Your task to perform on an android device: toggle location history Image 0: 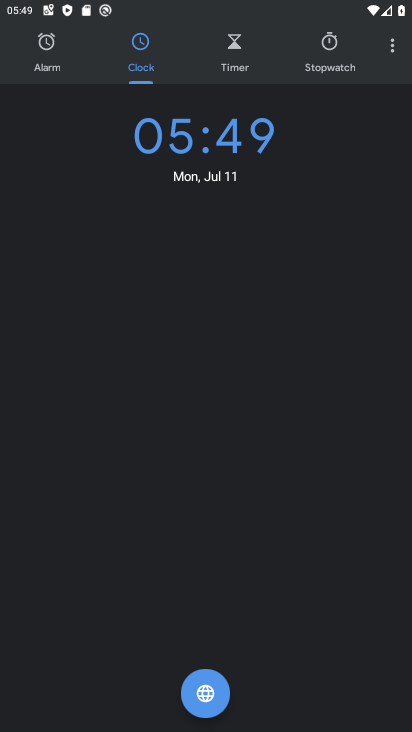
Step 0: press home button
Your task to perform on an android device: toggle location history Image 1: 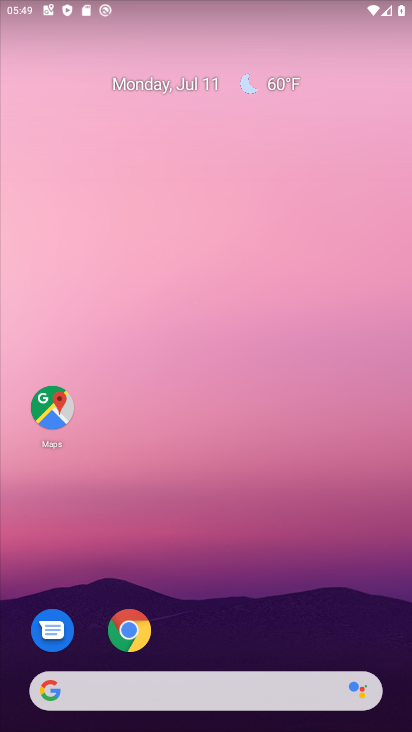
Step 1: drag from (194, 629) to (195, 546)
Your task to perform on an android device: toggle location history Image 2: 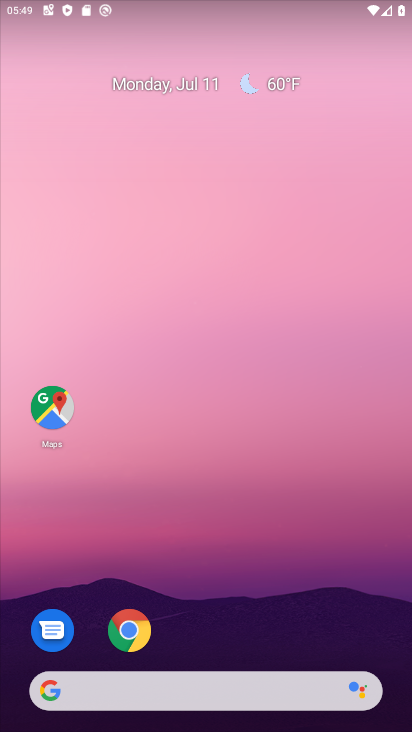
Step 2: drag from (206, 596) to (226, 77)
Your task to perform on an android device: toggle location history Image 3: 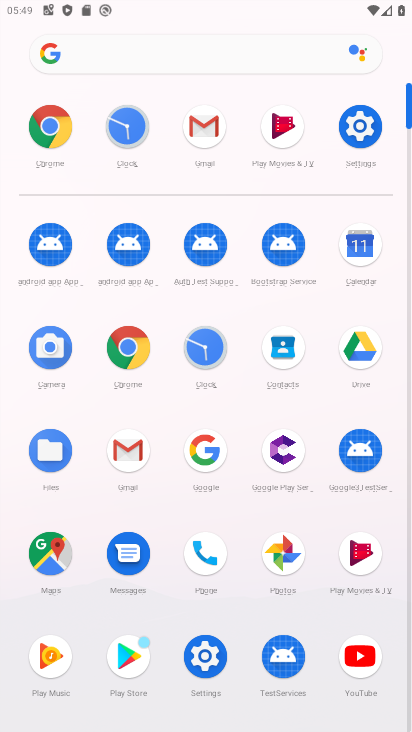
Step 3: click (362, 120)
Your task to perform on an android device: toggle location history Image 4: 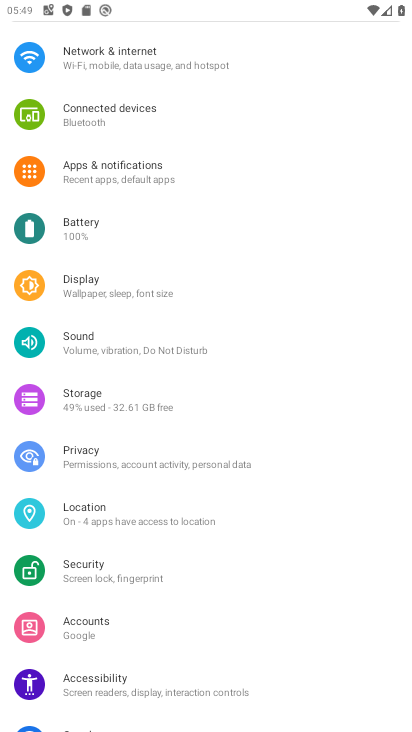
Step 4: click (80, 519)
Your task to perform on an android device: toggle location history Image 5: 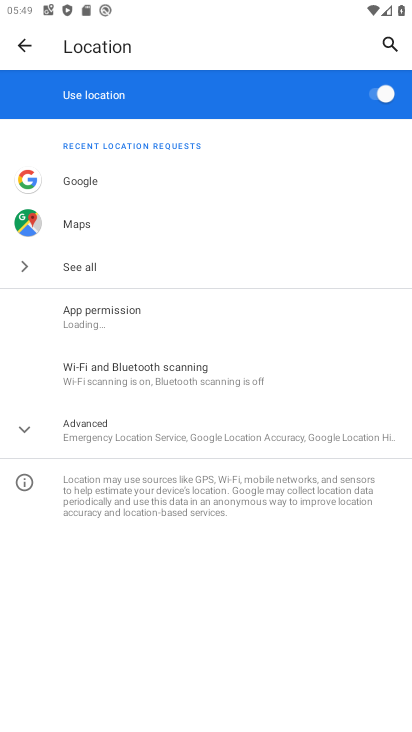
Step 5: click (107, 433)
Your task to perform on an android device: toggle location history Image 6: 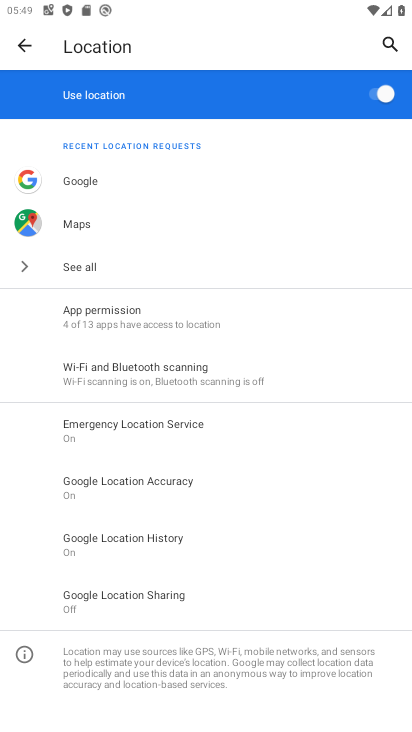
Step 6: click (141, 546)
Your task to perform on an android device: toggle location history Image 7: 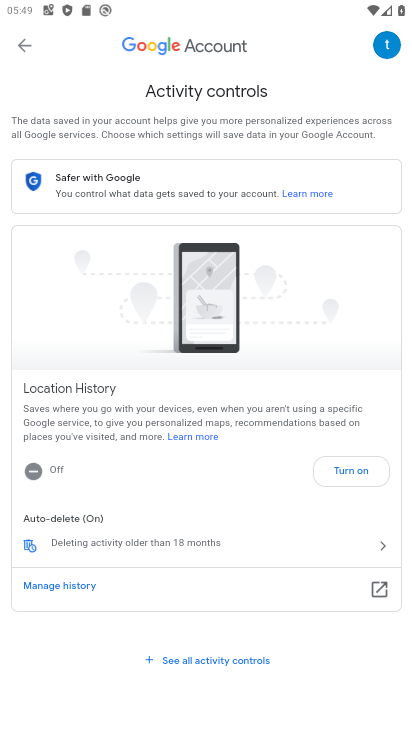
Step 7: click (343, 474)
Your task to perform on an android device: toggle location history Image 8: 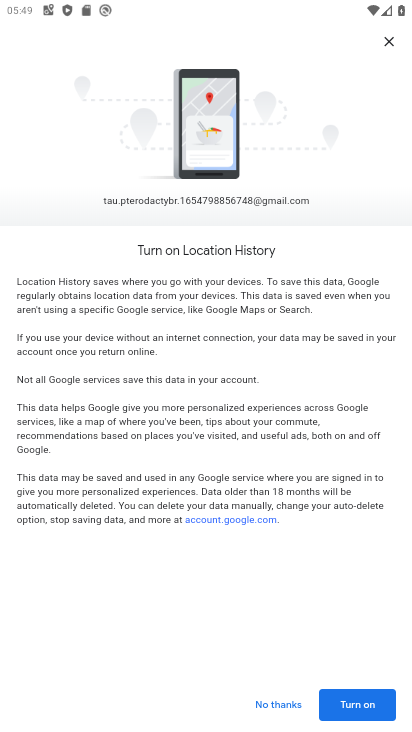
Step 8: click (343, 717)
Your task to perform on an android device: toggle location history Image 9: 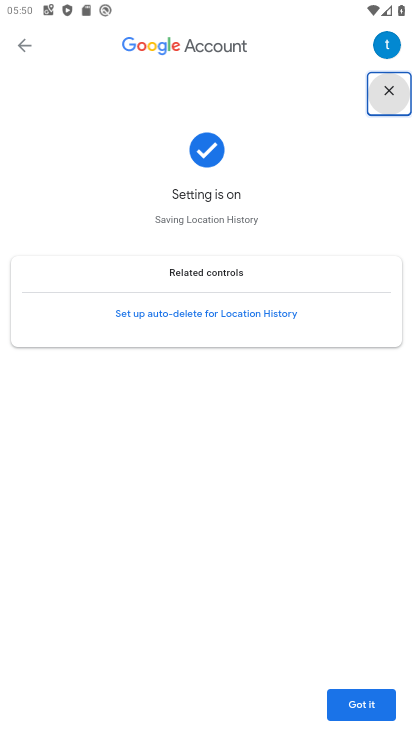
Step 9: click (341, 696)
Your task to perform on an android device: toggle location history Image 10: 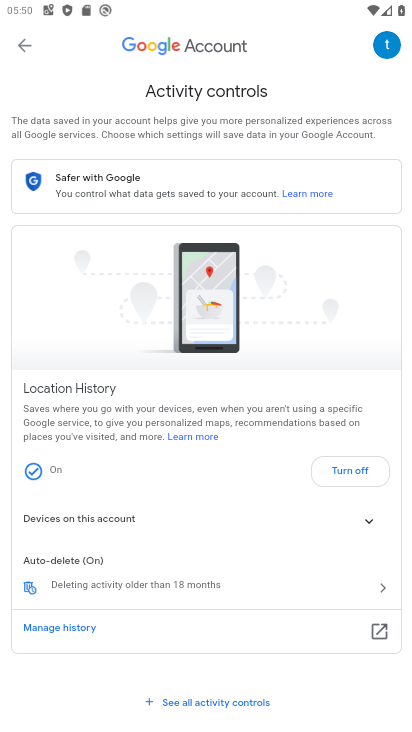
Step 10: task complete